Your task to perform on an android device: choose inbox layout in the gmail app Image 0: 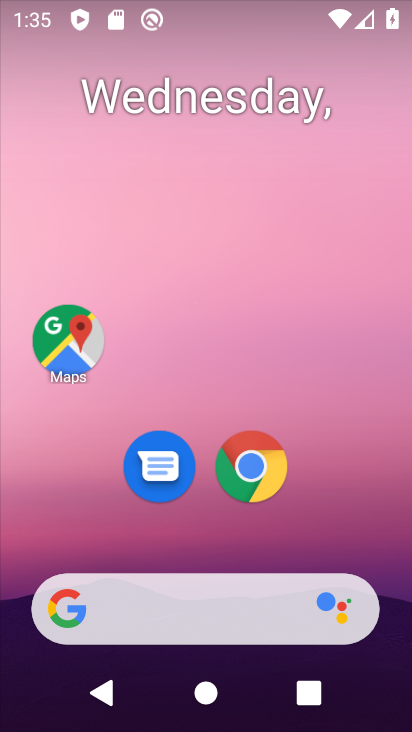
Step 0: drag from (310, 432) to (6, 466)
Your task to perform on an android device: choose inbox layout in the gmail app Image 1: 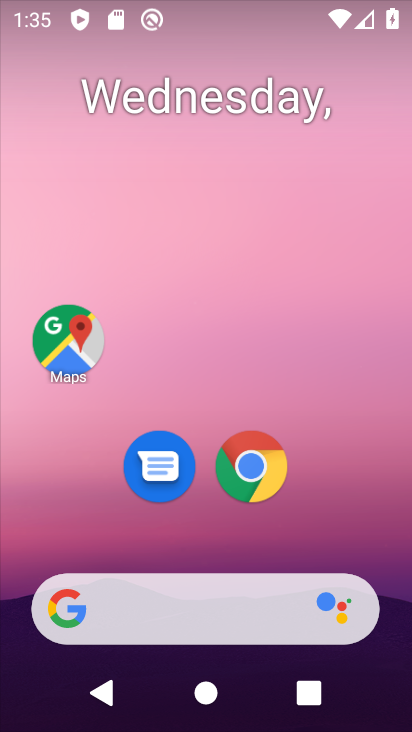
Step 1: drag from (19, 466) to (20, 63)
Your task to perform on an android device: choose inbox layout in the gmail app Image 2: 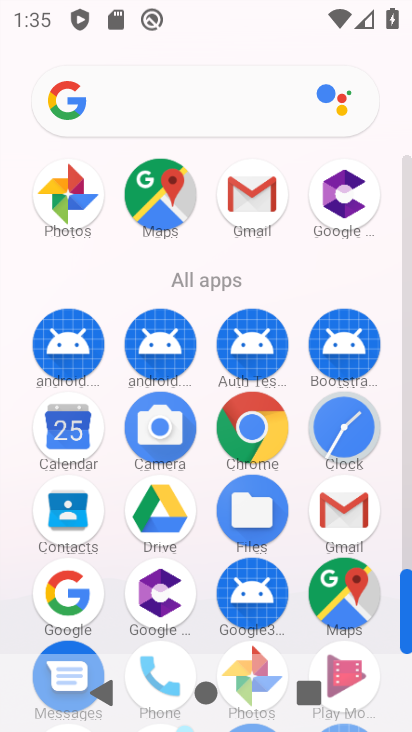
Step 2: click (251, 187)
Your task to perform on an android device: choose inbox layout in the gmail app Image 3: 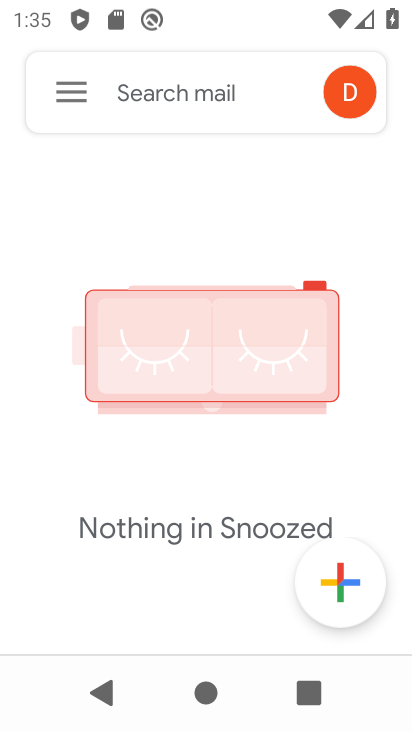
Step 3: click (52, 85)
Your task to perform on an android device: choose inbox layout in the gmail app Image 4: 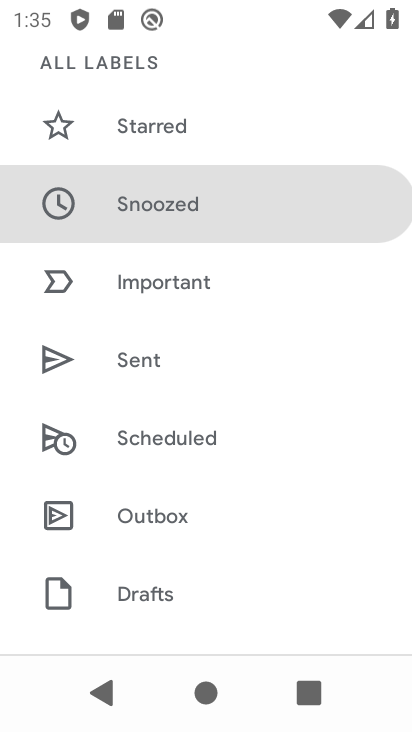
Step 4: drag from (211, 501) to (212, 121)
Your task to perform on an android device: choose inbox layout in the gmail app Image 5: 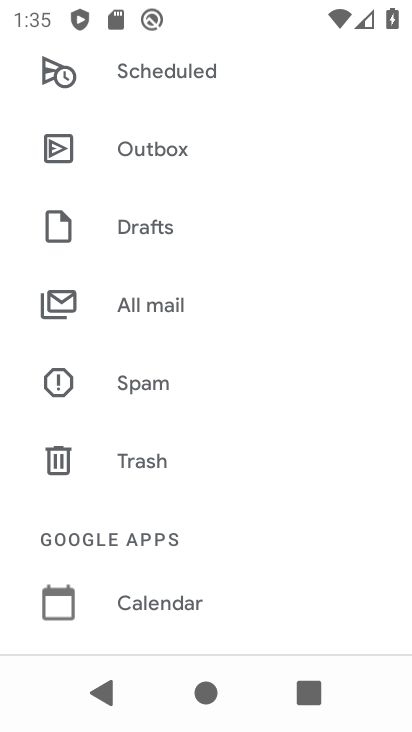
Step 5: drag from (248, 569) to (254, 103)
Your task to perform on an android device: choose inbox layout in the gmail app Image 6: 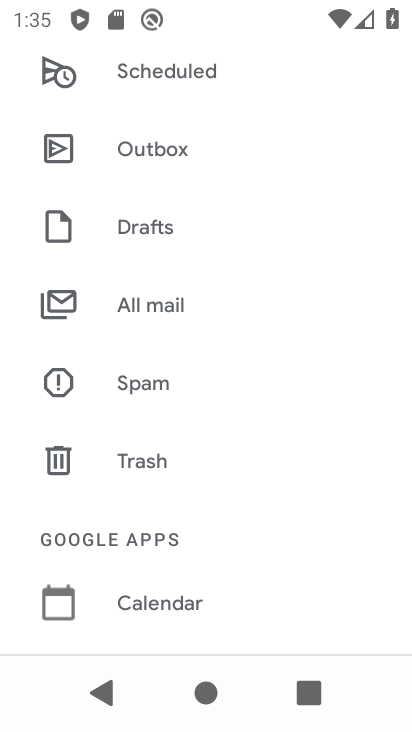
Step 6: drag from (245, 510) to (236, 153)
Your task to perform on an android device: choose inbox layout in the gmail app Image 7: 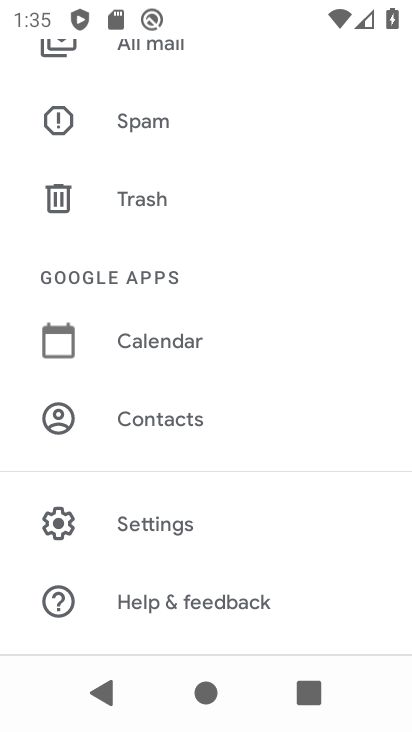
Step 7: click (174, 520)
Your task to perform on an android device: choose inbox layout in the gmail app Image 8: 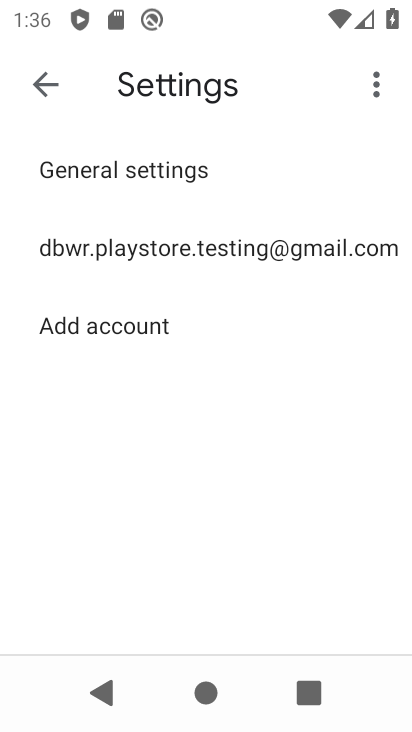
Step 8: click (173, 221)
Your task to perform on an android device: choose inbox layout in the gmail app Image 9: 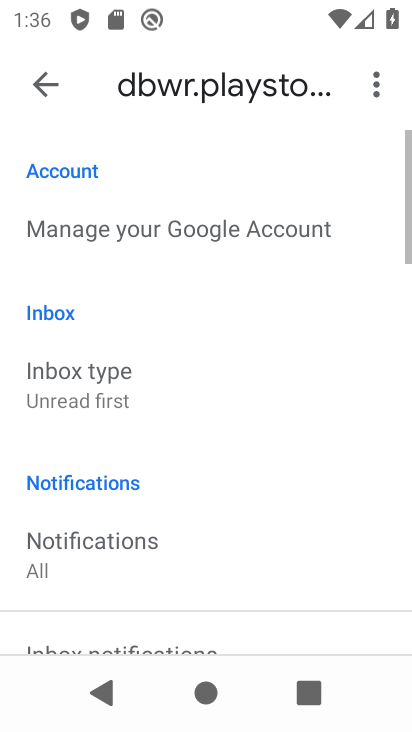
Step 9: drag from (194, 603) to (220, 206)
Your task to perform on an android device: choose inbox layout in the gmail app Image 10: 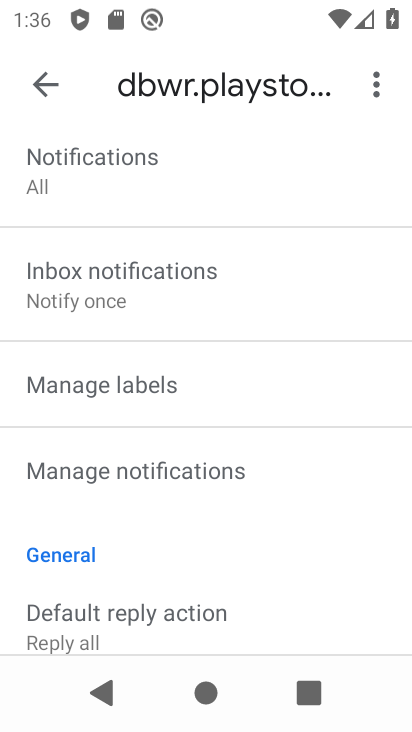
Step 10: drag from (283, 576) to (287, 183)
Your task to perform on an android device: choose inbox layout in the gmail app Image 11: 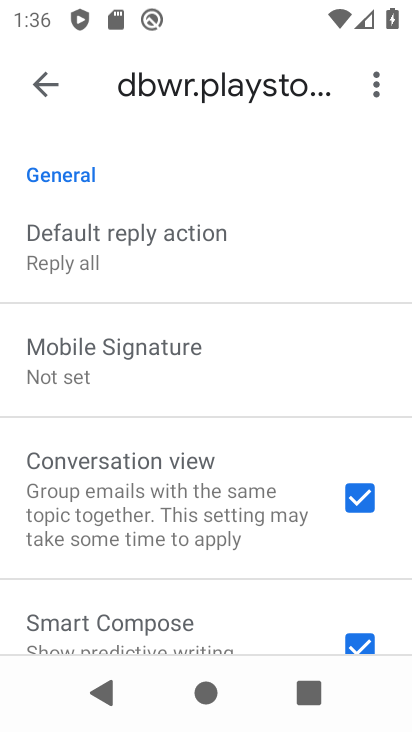
Step 11: drag from (215, 608) to (243, 182)
Your task to perform on an android device: choose inbox layout in the gmail app Image 12: 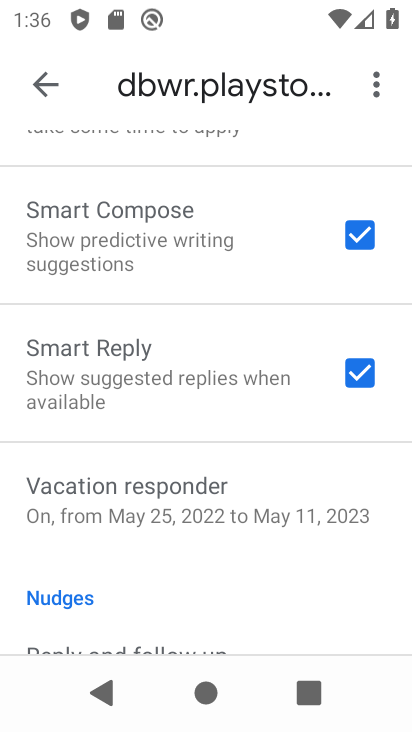
Step 12: drag from (238, 587) to (208, 163)
Your task to perform on an android device: choose inbox layout in the gmail app Image 13: 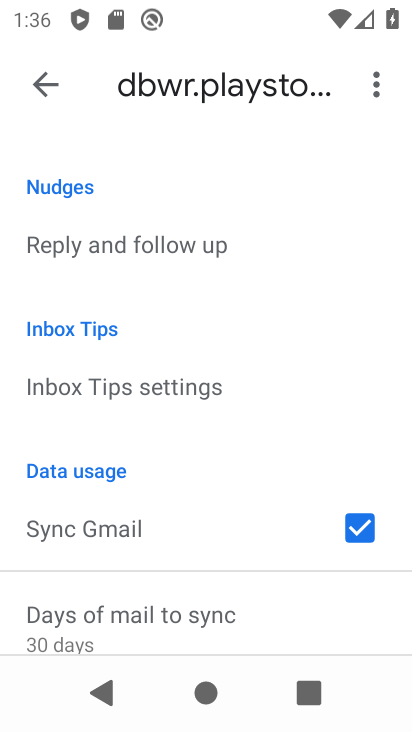
Step 13: drag from (267, 602) to (231, 144)
Your task to perform on an android device: choose inbox layout in the gmail app Image 14: 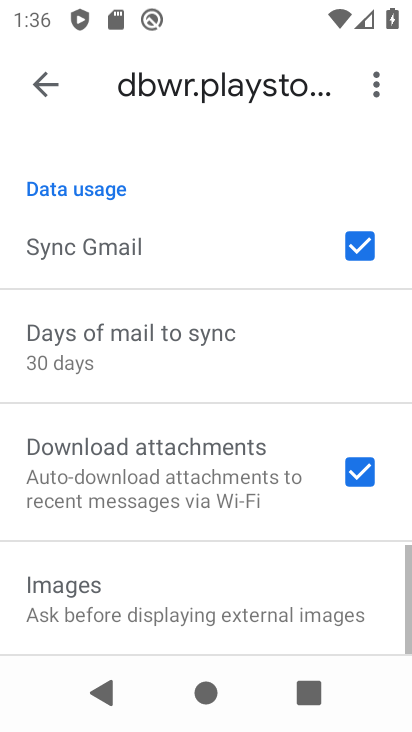
Step 14: drag from (229, 512) to (216, 116)
Your task to perform on an android device: choose inbox layout in the gmail app Image 15: 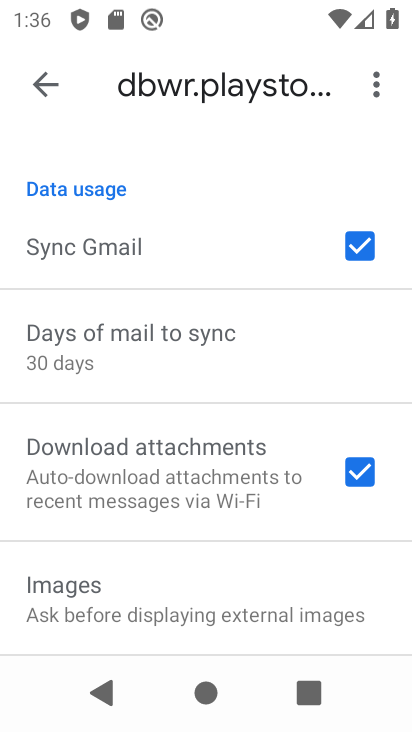
Step 15: drag from (266, 620) to (227, 296)
Your task to perform on an android device: choose inbox layout in the gmail app Image 16: 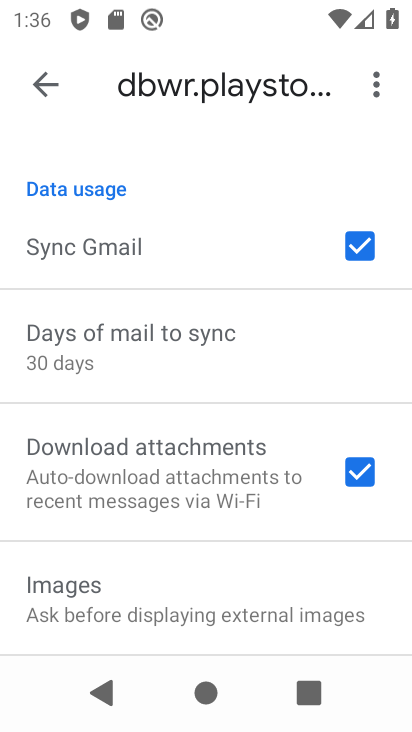
Step 16: drag from (225, 209) to (228, 625)
Your task to perform on an android device: choose inbox layout in the gmail app Image 17: 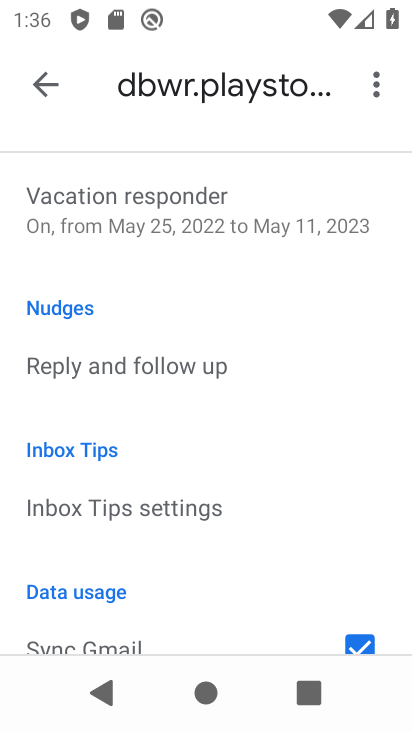
Step 17: drag from (228, 157) to (237, 615)
Your task to perform on an android device: choose inbox layout in the gmail app Image 18: 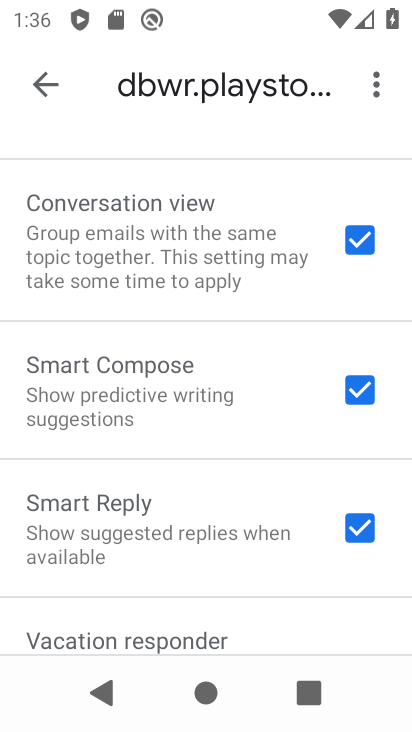
Step 18: drag from (228, 206) to (239, 655)
Your task to perform on an android device: choose inbox layout in the gmail app Image 19: 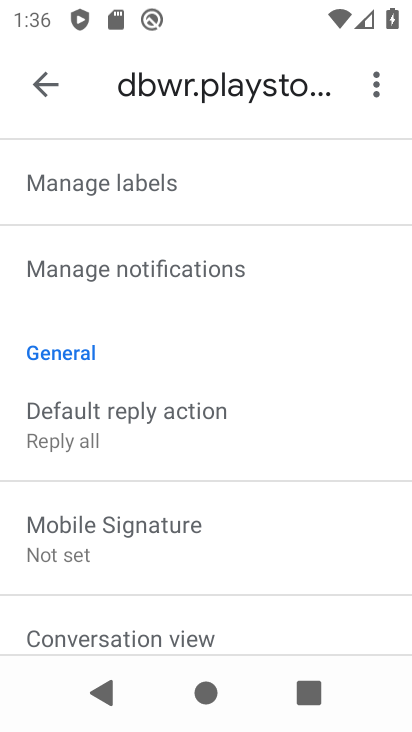
Step 19: drag from (229, 276) to (242, 603)
Your task to perform on an android device: choose inbox layout in the gmail app Image 20: 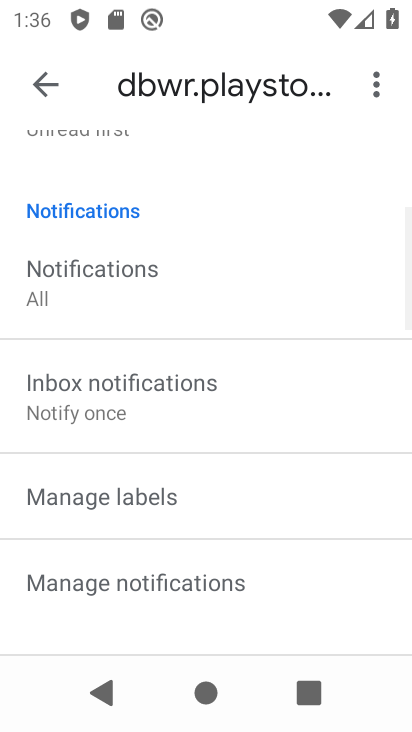
Step 20: drag from (222, 231) to (221, 555)
Your task to perform on an android device: choose inbox layout in the gmail app Image 21: 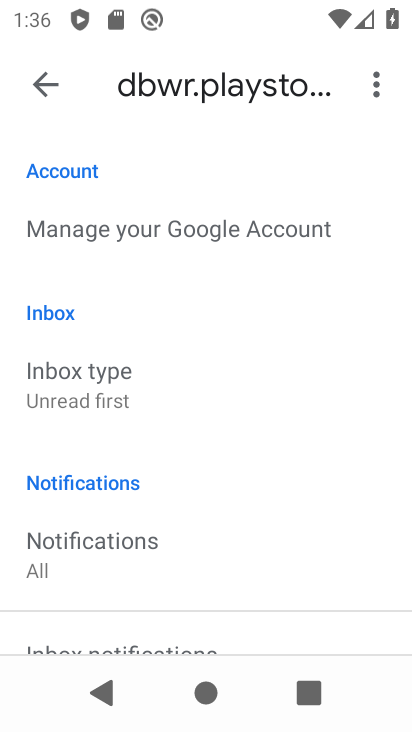
Step 21: drag from (190, 218) to (199, 562)
Your task to perform on an android device: choose inbox layout in the gmail app Image 22: 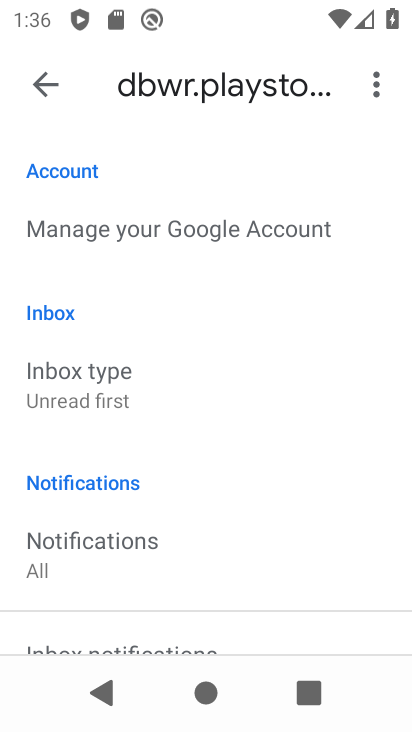
Step 22: click (103, 392)
Your task to perform on an android device: choose inbox layout in the gmail app Image 23: 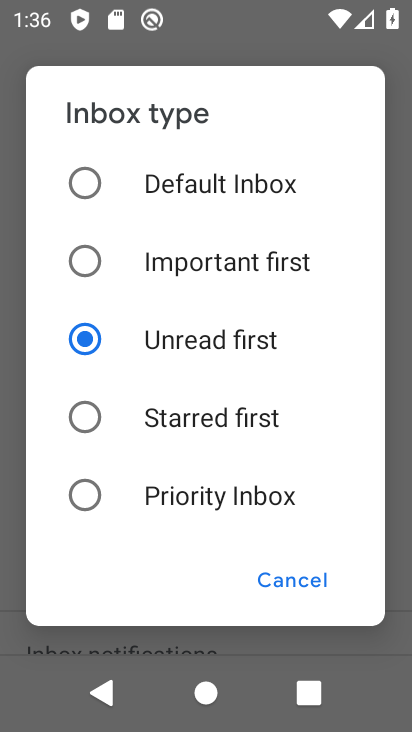
Step 23: click (162, 191)
Your task to perform on an android device: choose inbox layout in the gmail app Image 24: 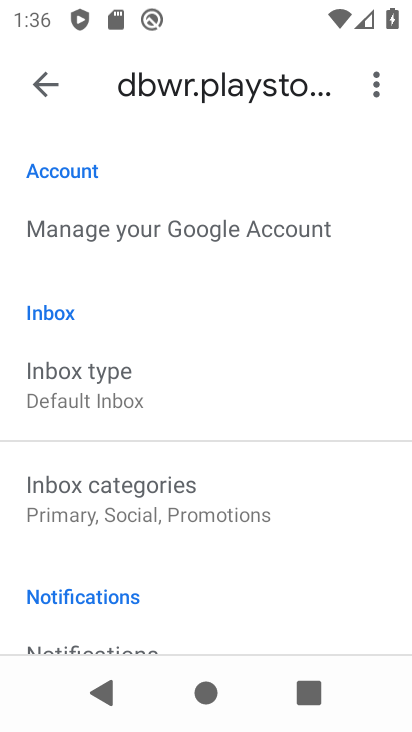
Step 24: task complete